Your task to perform on an android device: Turn on the flashlight Image 0: 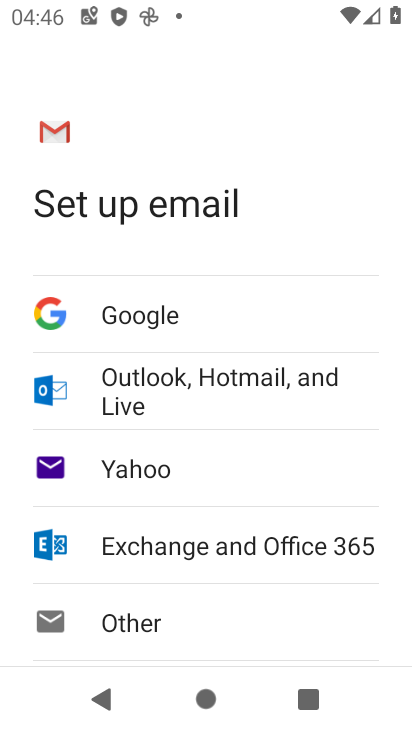
Step 0: drag from (299, 1) to (304, 706)
Your task to perform on an android device: Turn on the flashlight Image 1: 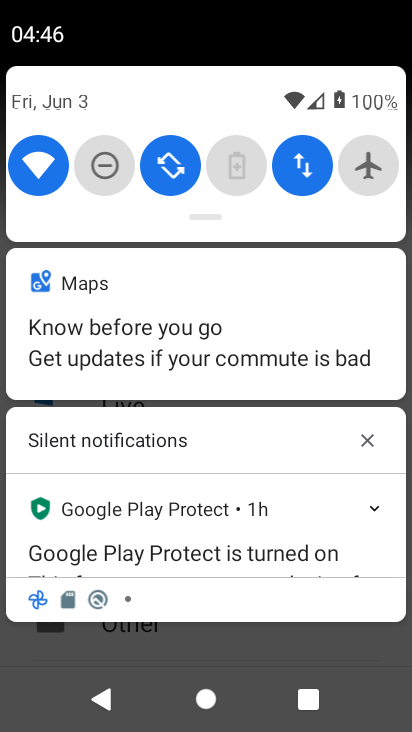
Step 1: task complete